Your task to perform on an android device: turn pop-ups off in chrome Image 0: 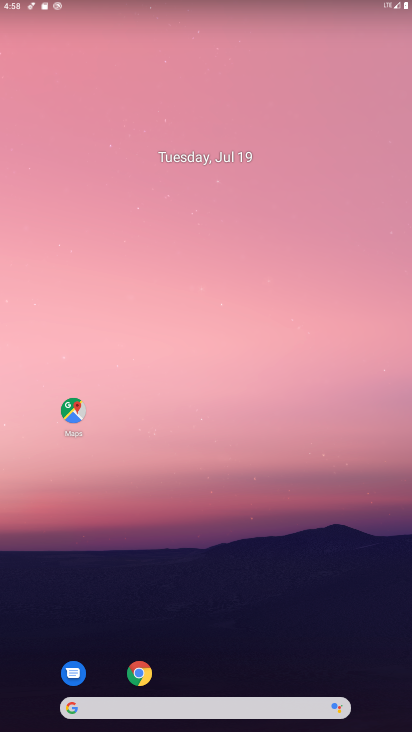
Step 0: click (133, 669)
Your task to perform on an android device: turn pop-ups off in chrome Image 1: 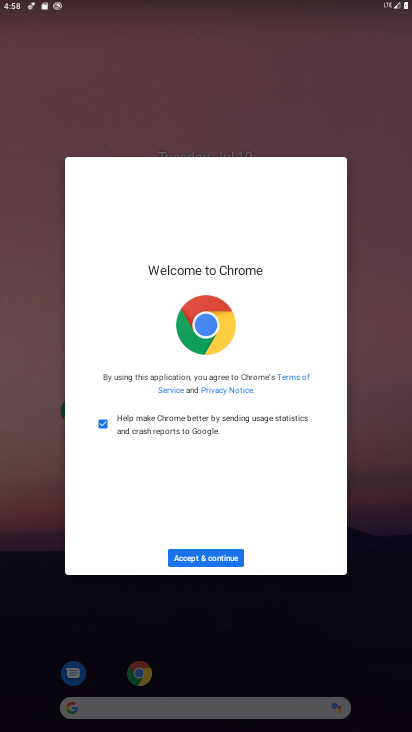
Step 1: click (200, 557)
Your task to perform on an android device: turn pop-ups off in chrome Image 2: 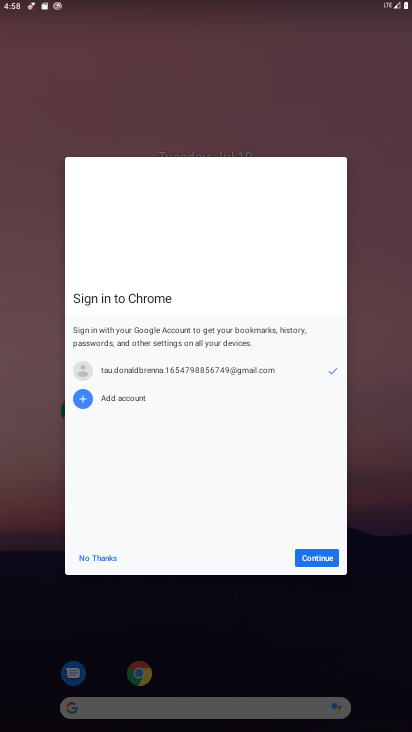
Step 2: click (322, 555)
Your task to perform on an android device: turn pop-ups off in chrome Image 3: 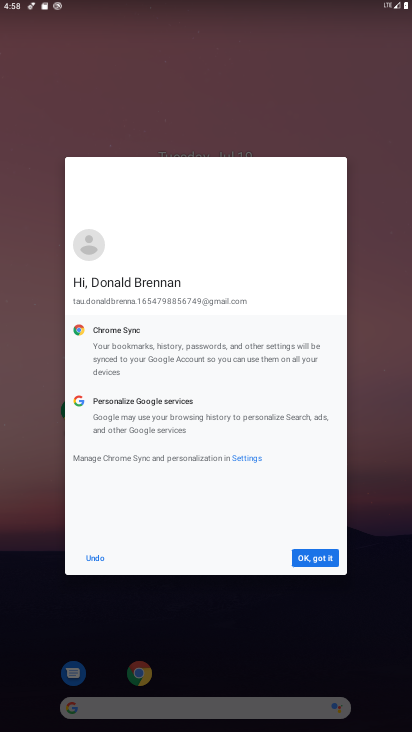
Step 3: click (317, 554)
Your task to perform on an android device: turn pop-ups off in chrome Image 4: 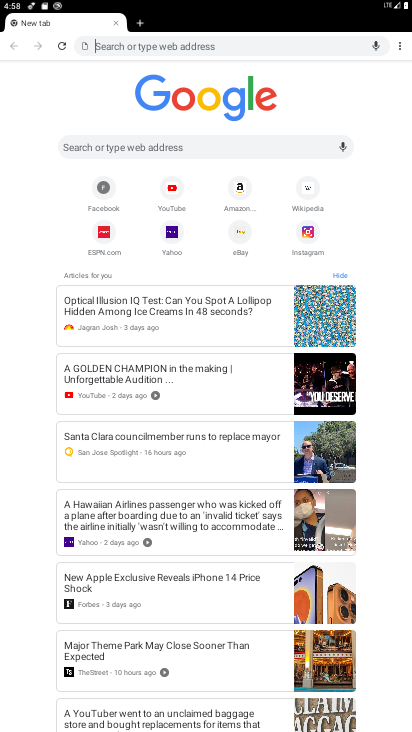
Step 4: click (396, 45)
Your task to perform on an android device: turn pop-ups off in chrome Image 5: 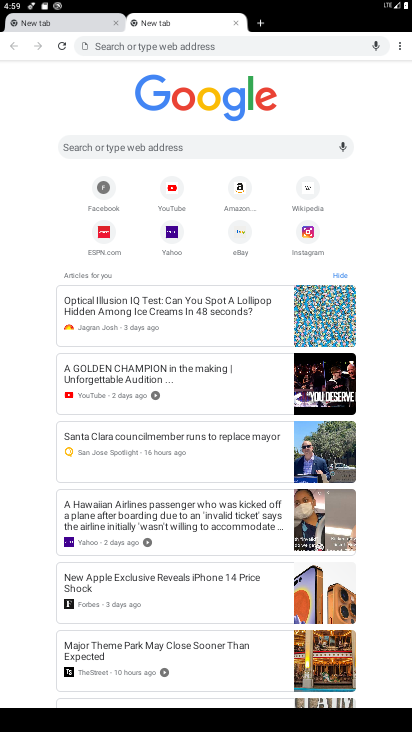
Step 5: click (398, 39)
Your task to perform on an android device: turn pop-ups off in chrome Image 6: 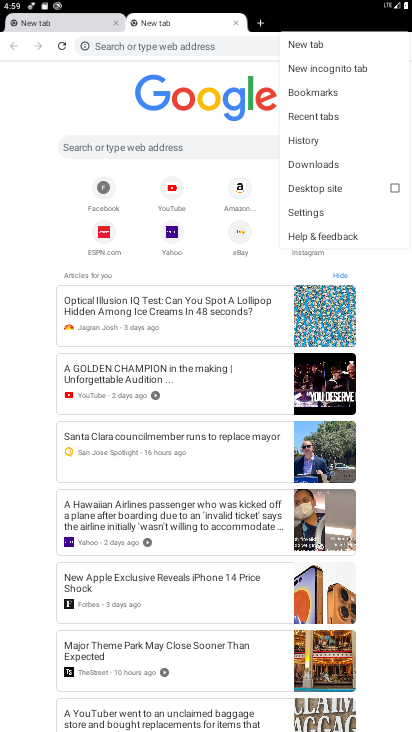
Step 6: click (320, 214)
Your task to perform on an android device: turn pop-ups off in chrome Image 7: 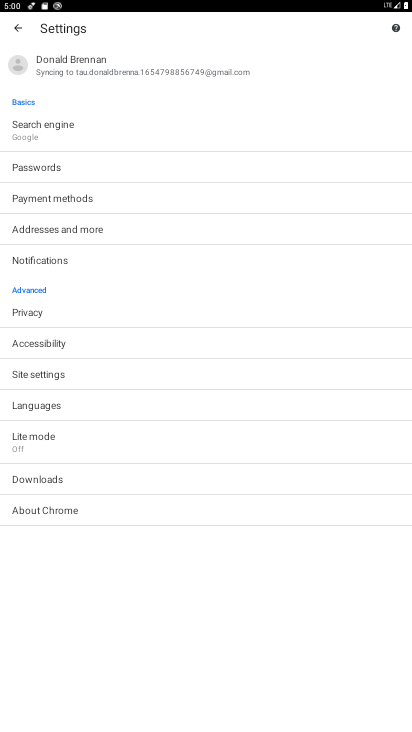
Step 7: click (60, 366)
Your task to perform on an android device: turn pop-ups off in chrome Image 8: 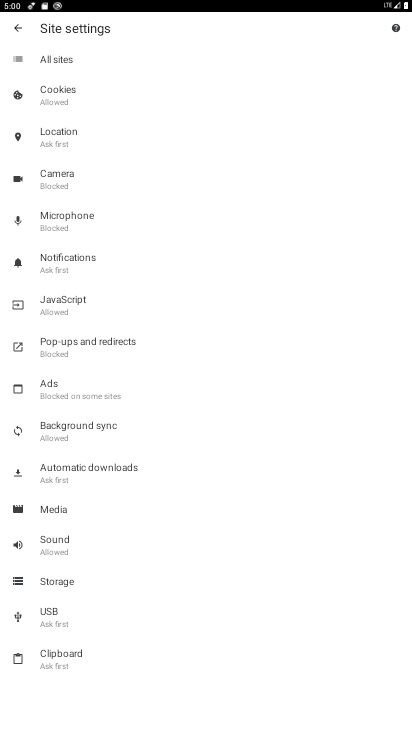
Step 8: click (101, 342)
Your task to perform on an android device: turn pop-ups off in chrome Image 9: 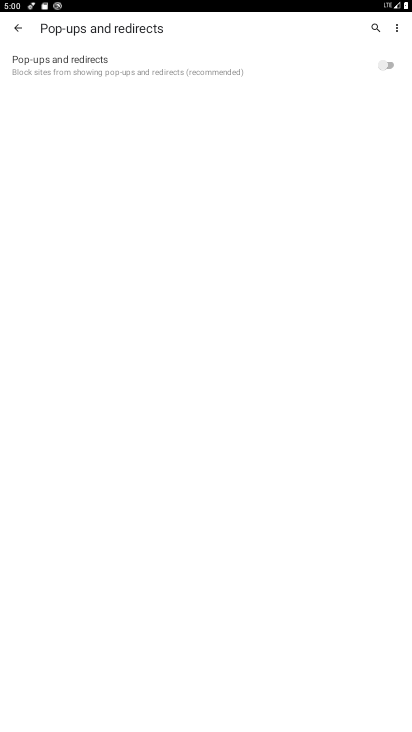
Step 9: task complete